Your task to perform on an android device: Open Maps and search for coffee Image 0: 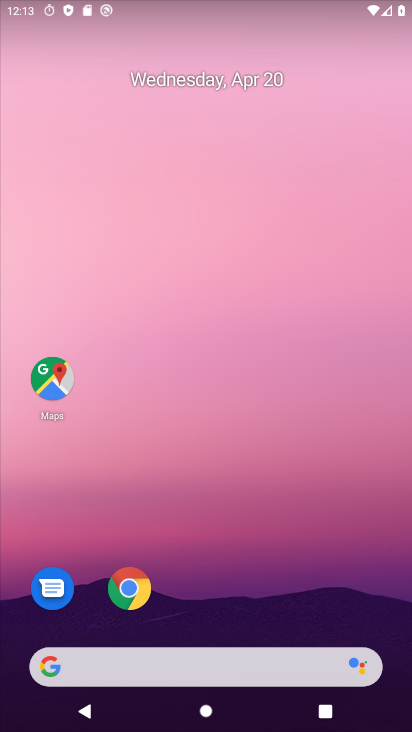
Step 0: click (49, 379)
Your task to perform on an android device: Open Maps and search for coffee Image 1: 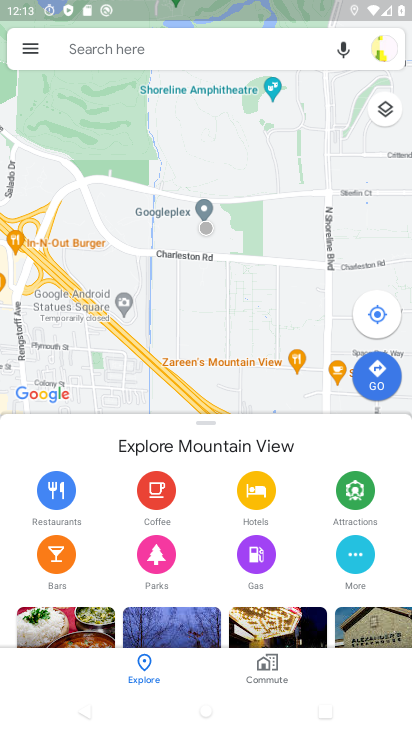
Step 1: click (148, 61)
Your task to perform on an android device: Open Maps and search for coffee Image 2: 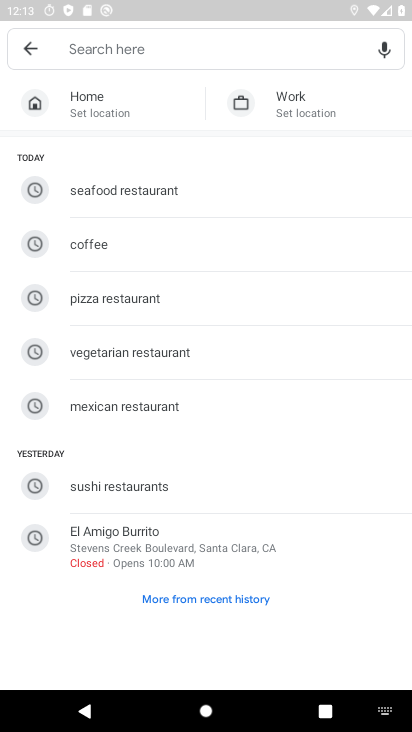
Step 2: click (114, 243)
Your task to perform on an android device: Open Maps and search for coffee Image 3: 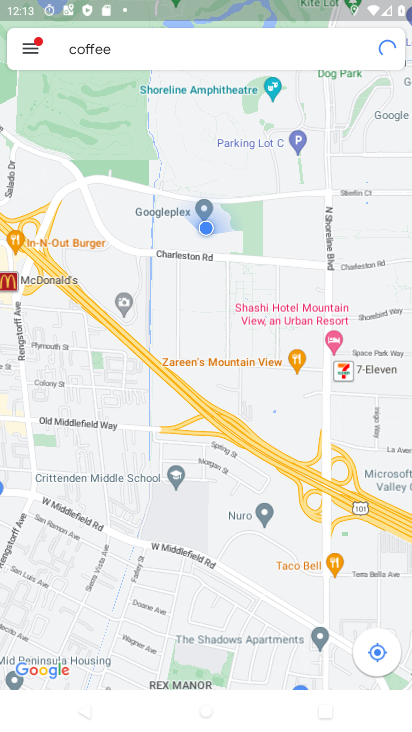
Step 3: task complete